Your task to perform on an android device: turn on the 24-hour format for clock Image 0: 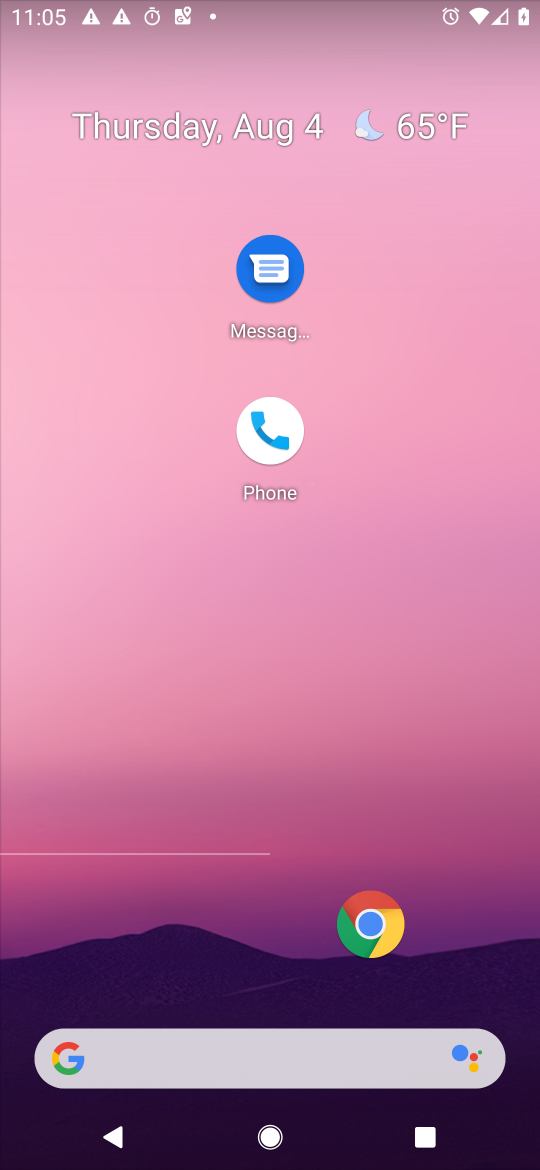
Step 0: click (384, 228)
Your task to perform on an android device: turn on the 24-hour format for clock Image 1: 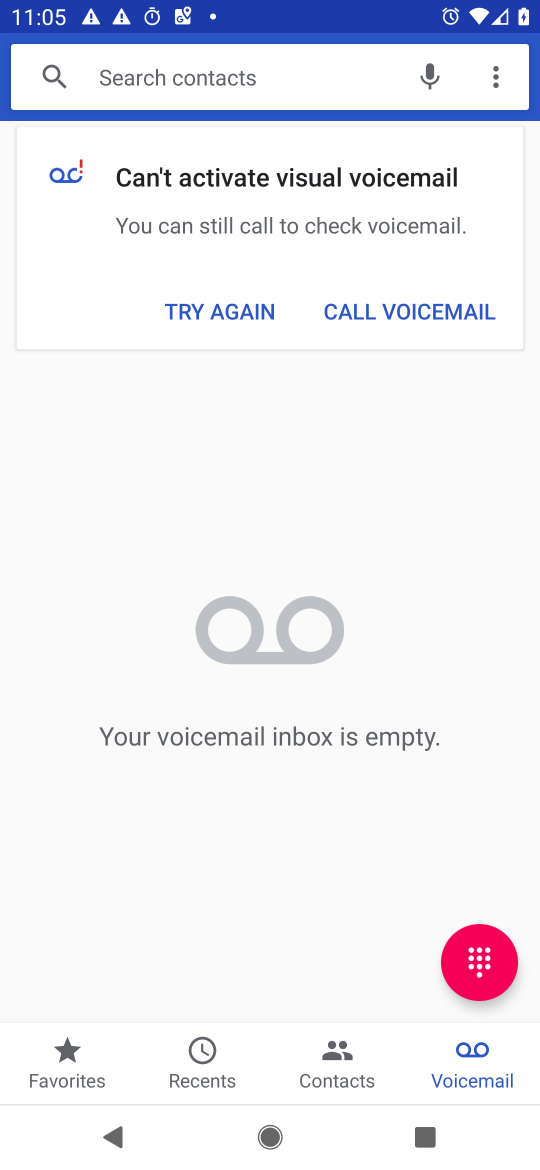
Step 1: press home button
Your task to perform on an android device: turn on the 24-hour format for clock Image 2: 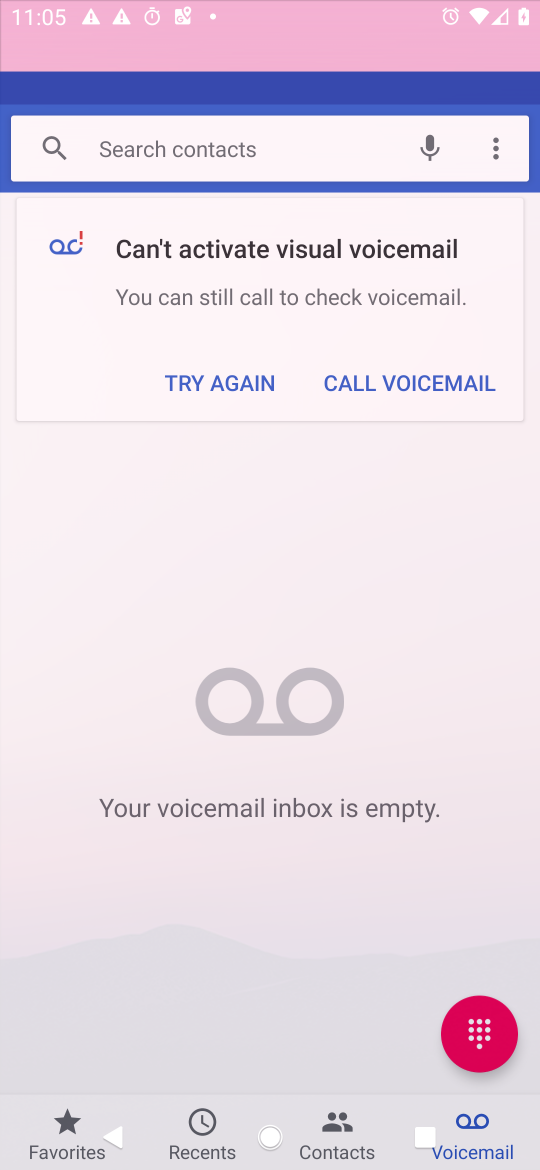
Step 2: drag from (233, 953) to (370, 195)
Your task to perform on an android device: turn on the 24-hour format for clock Image 3: 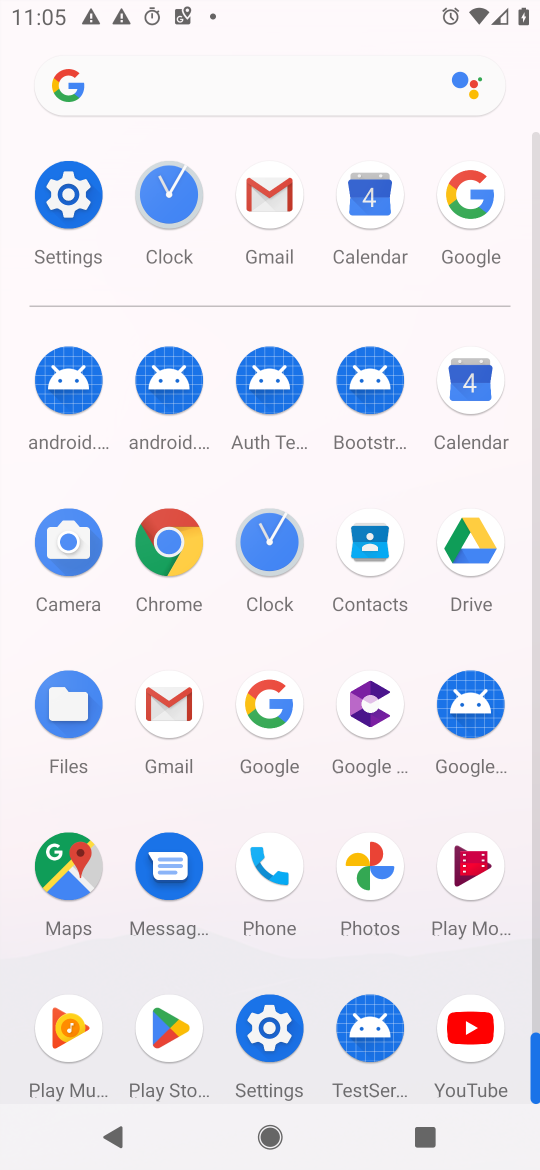
Step 3: click (272, 541)
Your task to perform on an android device: turn on the 24-hour format for clock Image 4: 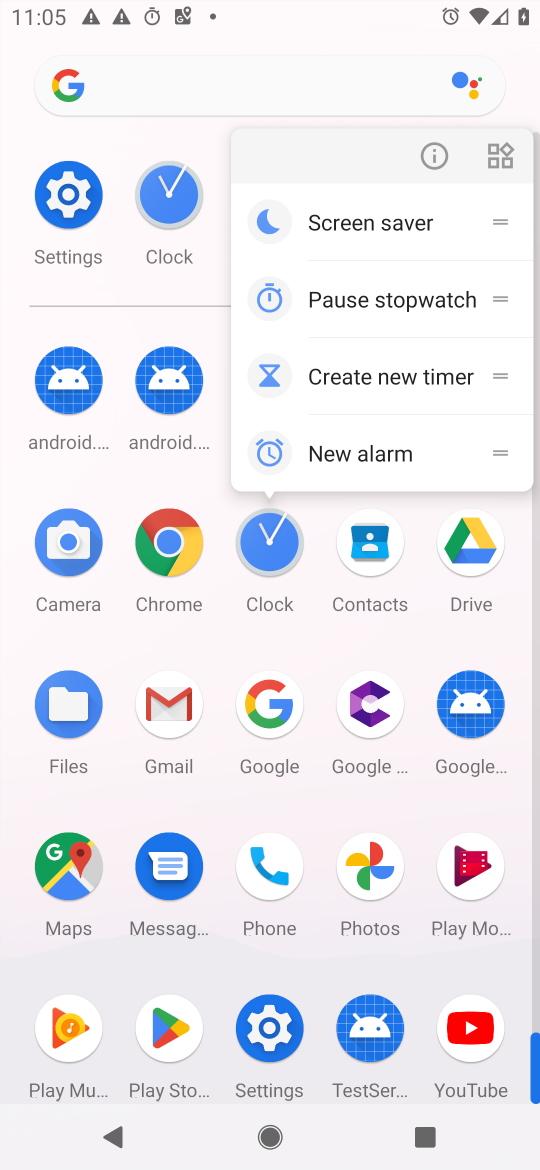
Step 4: click (435, 162)
Your task to perform on an android device: turn on the 24-hour format for clock Image 5: 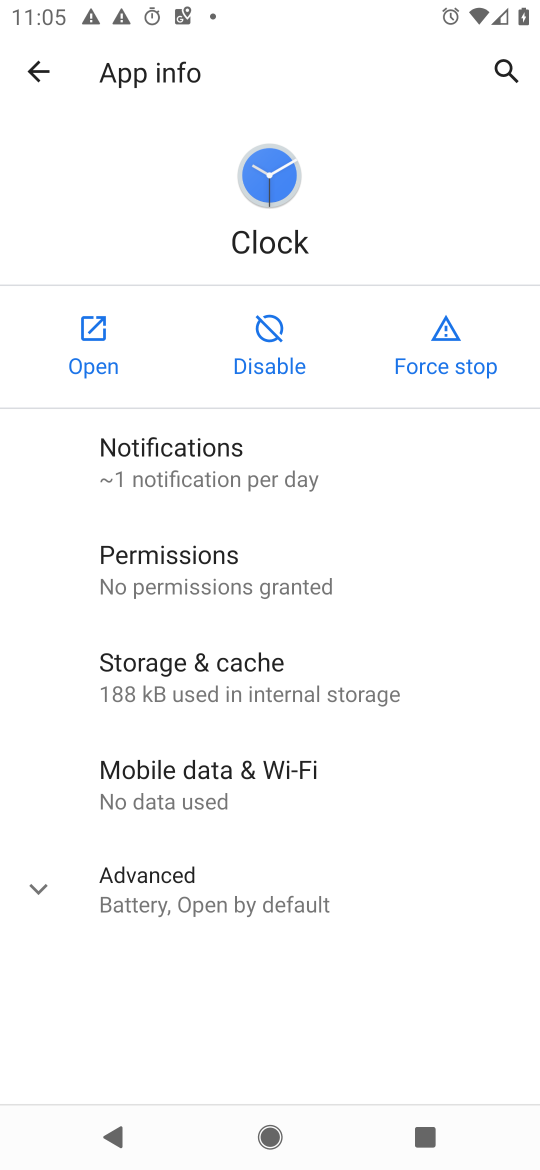
Step 5: click (122, 356)
Your task to perform on an android device: turn on the 24-hour format for clock Image 6: 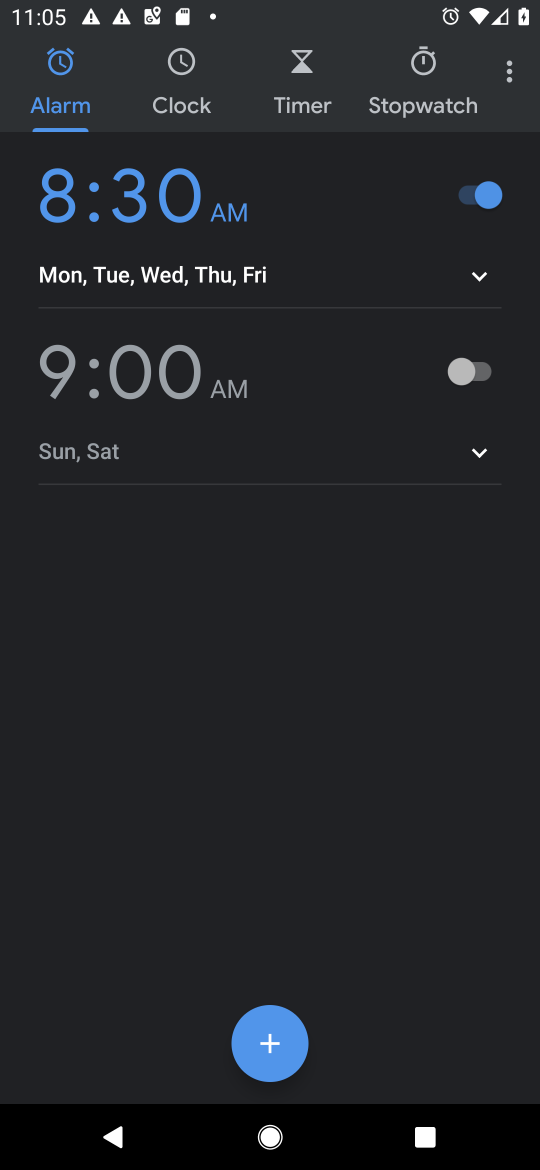
Step 6: drag from (515, 80) to (401, 138)
Your task to perform on an android device: turn on the 24-hour format for clock Image 7: 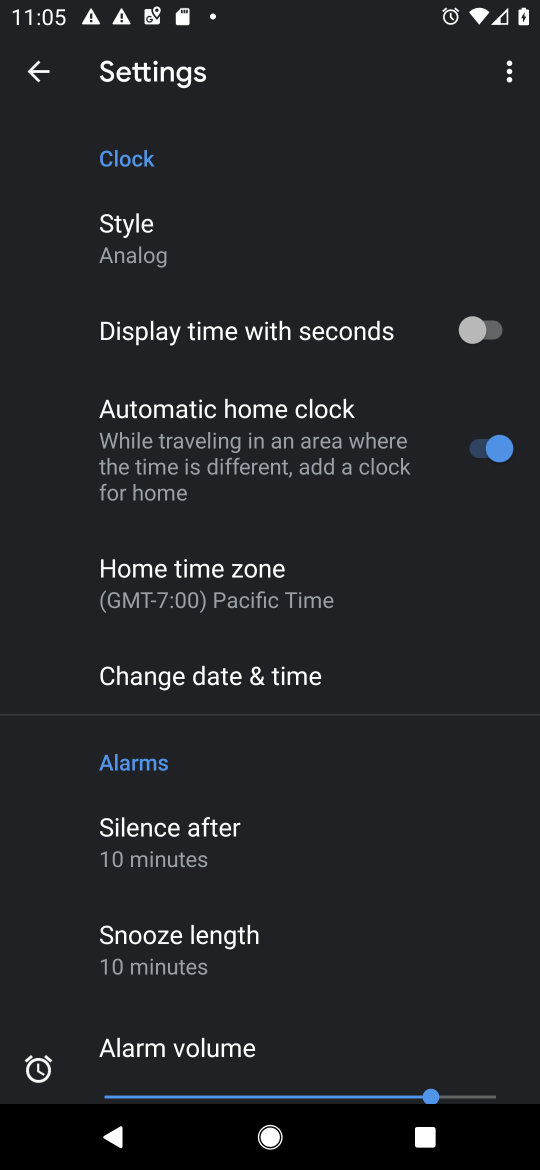
Step 7: click (335, 670)
Your task to perform on an android device: turn on the 24-hour format for clock Image 8: 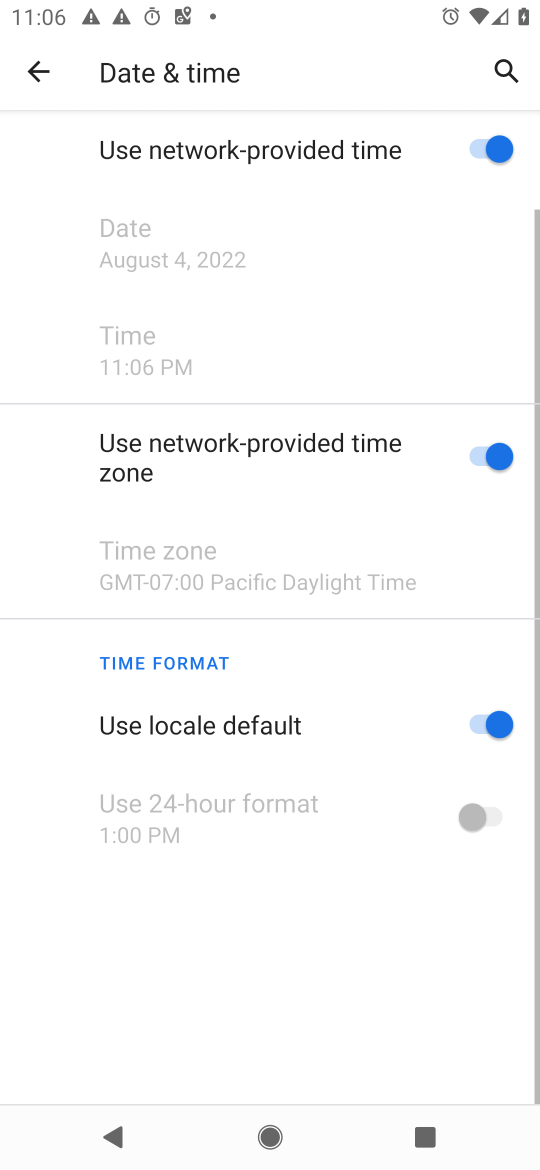
Step 8: drag from (66, 978) to (341, 221)
Your task to perform on an android device: turn on the 24-hour format for clock Image 9: 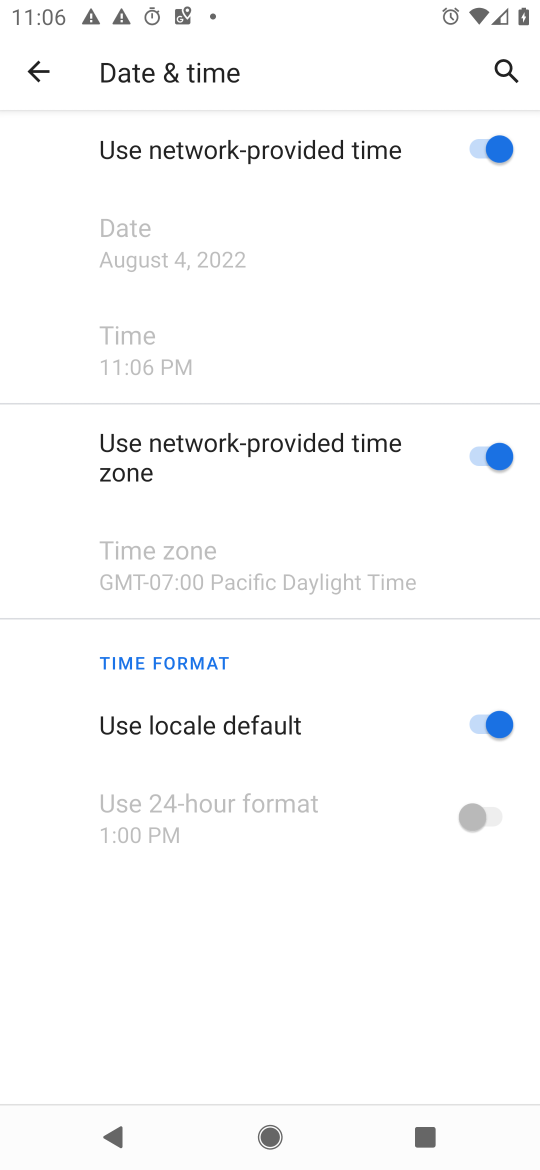
Step 9: drag from (293, 305) to (356, 996)
Your task to perform on an android device: turn on the 24-hour format for clock Image 10: 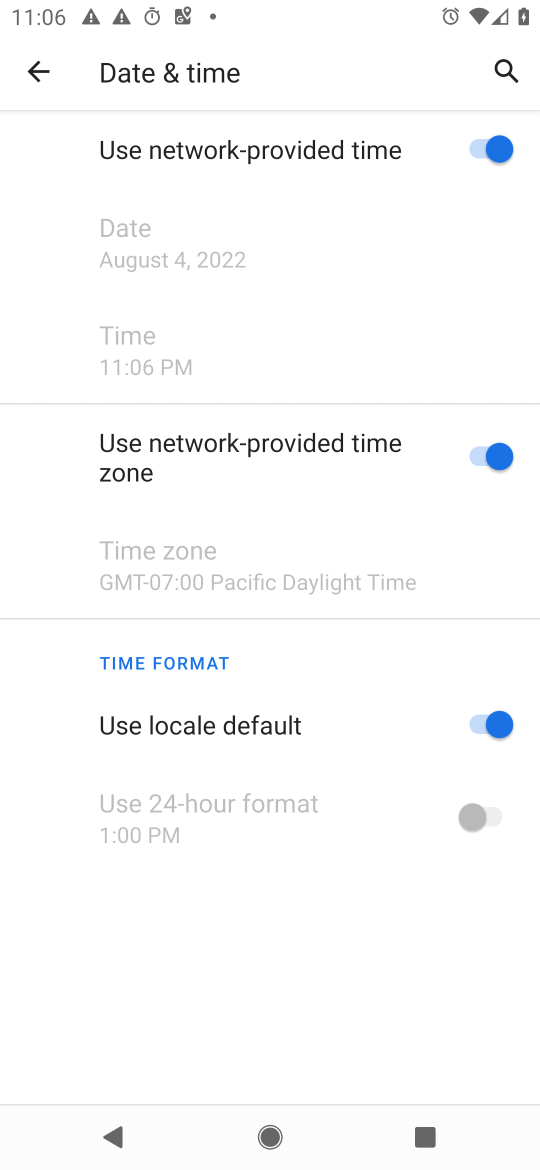
Step 10: click (504, 721)
Your task to perform on an android device: turn on the 24-hour format for clock Image 11: 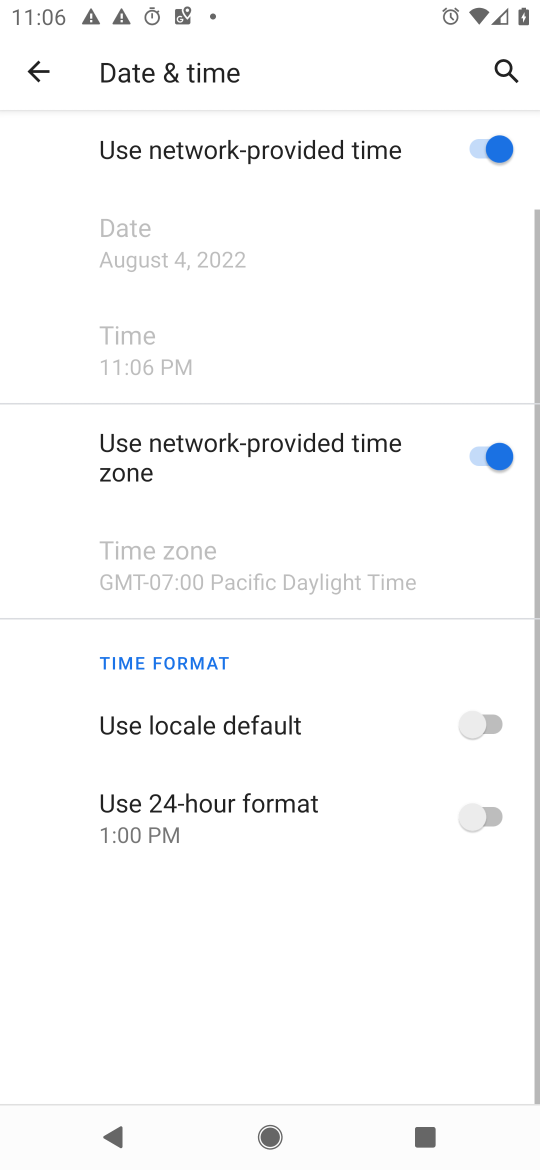
Step 11: click (471, 817)
Your task to perform on an android device: turn on the 24-hour format for clock Image 12: 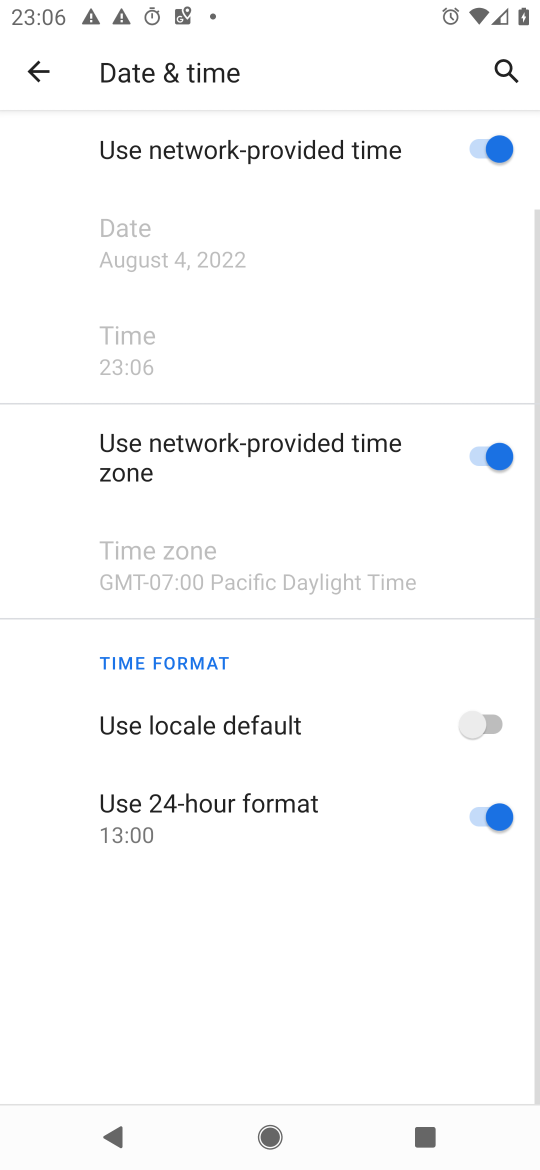
Step 12: task complete